Your task to perform on an android device: turn on improve location accuracy Image 0: 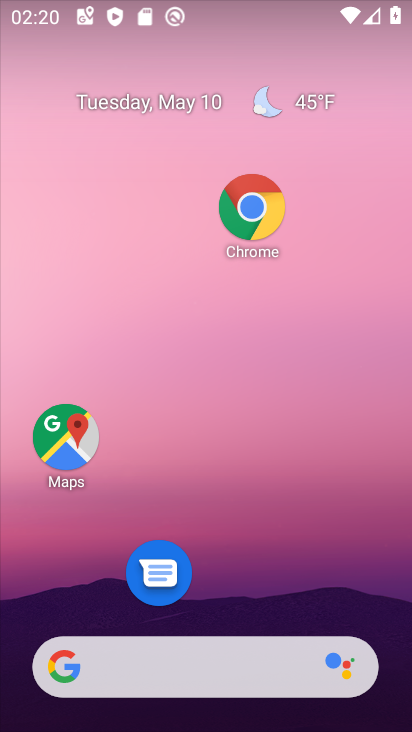
Step 0: drag from (274, 586) to (315, 3)
Your task to perform on an android device: turn on improve location accuracy Image 1: 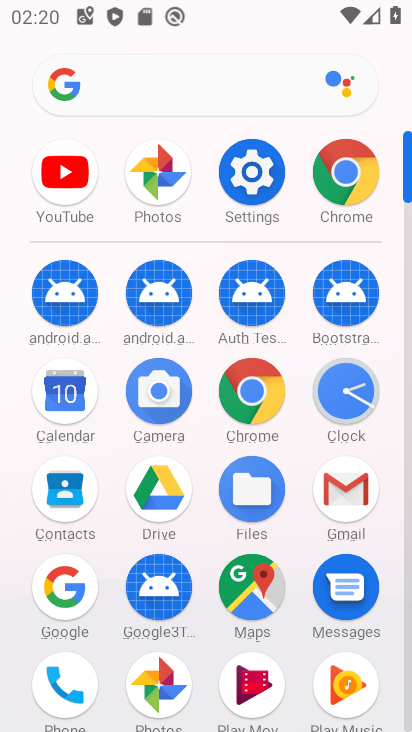
Step 1: click (238, 184)
Your task to perform on an android device: turn on improve location accuracy Image 2: 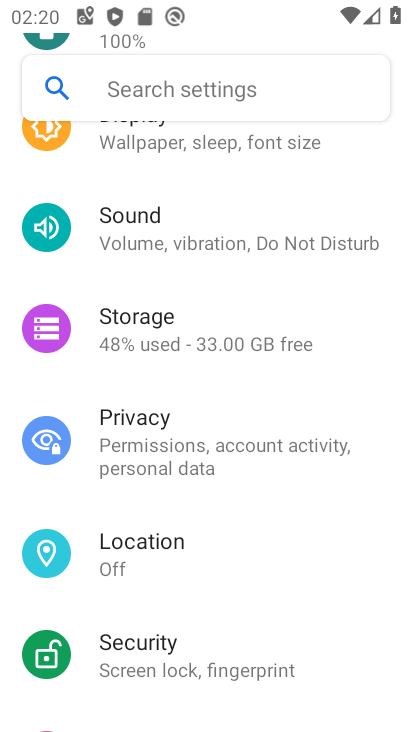
Step 2: click (157, 554)
Your task to perform on an android device: turn on improve location accuracy Image 3: 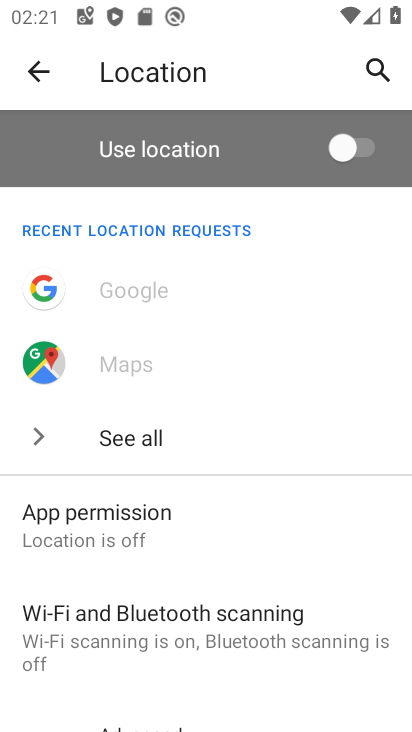
Step 3: drag from (167, 604) to (224, 220)
Your task to perform on an android device: turn on improve location accuracy Image 4: 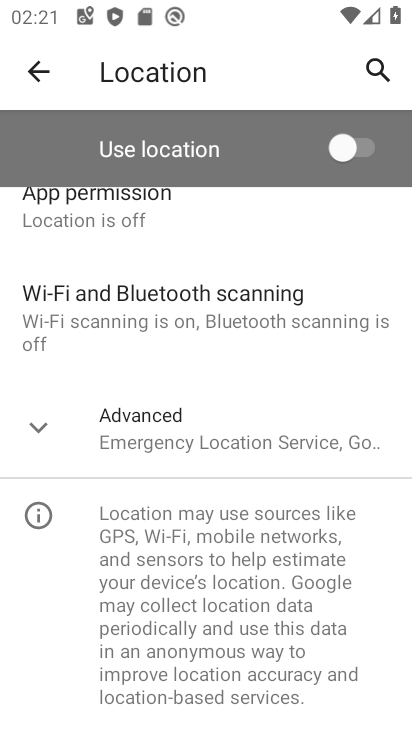
Step 4: click (220, 436)
Your task to perform on an android device: turn on improve location accuracy Image 5: 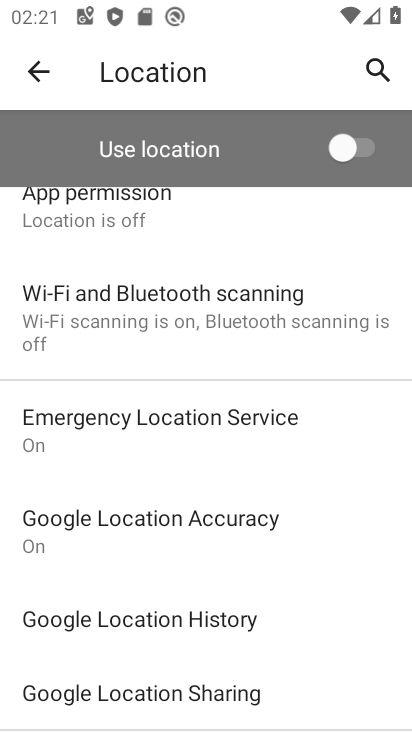
Step 5: click (208, 542)
Your task to perform on an android device: turn on improve location accuracy Image 6: 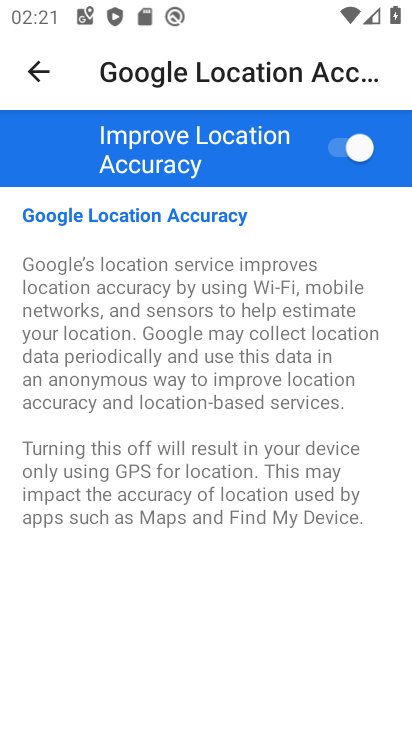
Step 6: task complete